Your task to perform on an android device: change notification settings in the gmail app Image 0: 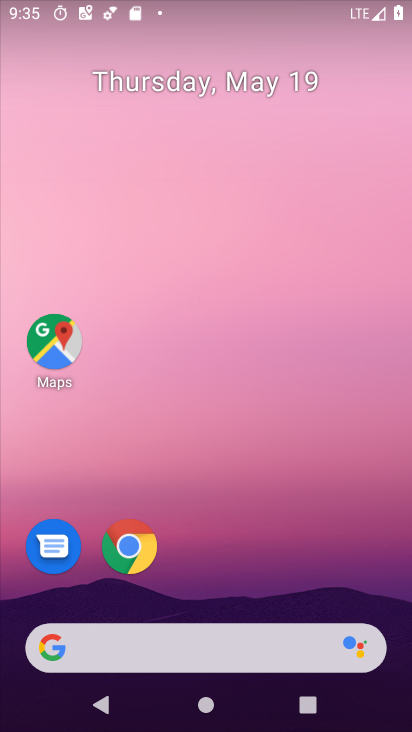
Step 0: drag from (341, 679) to (268, 6)
Your task to perform on an android device: change notification settings in the gmail app Image 1: 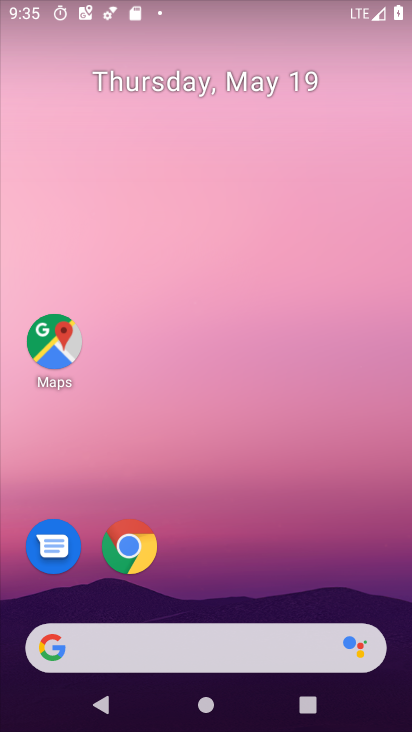
Step 1: drag from (259, 674) to (163, 180)
Your task to perform on an android device: change notification settings in the gmail app Image 2: 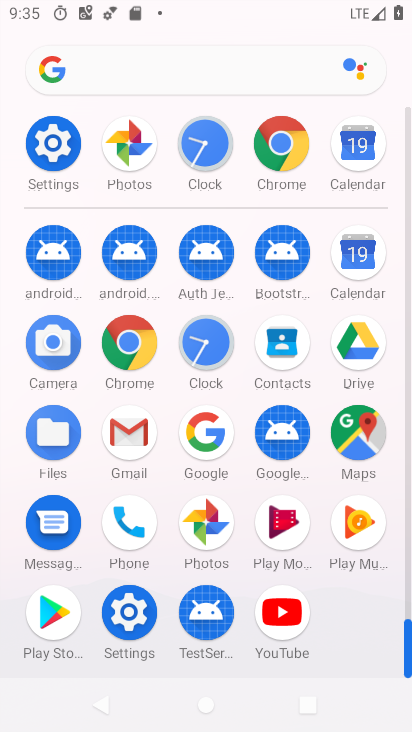
Step 2: click (136, 440)
Your task to perform on an android device: change notification settings in the gmail app Image 3: 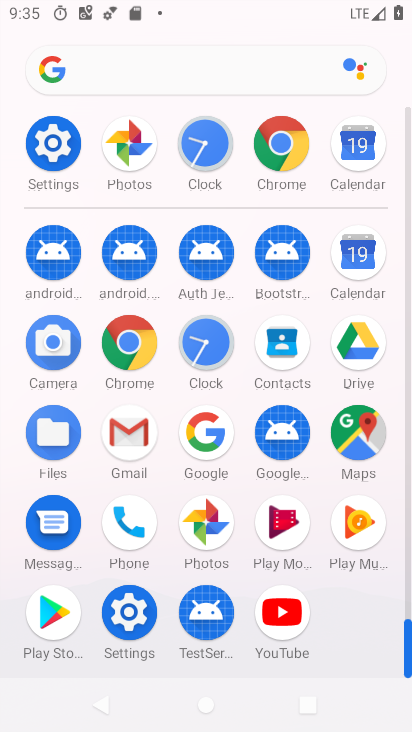
Step 3: click (136, 440)
Your task to perform on an android device: change notification settings in the gmail app Image 4: 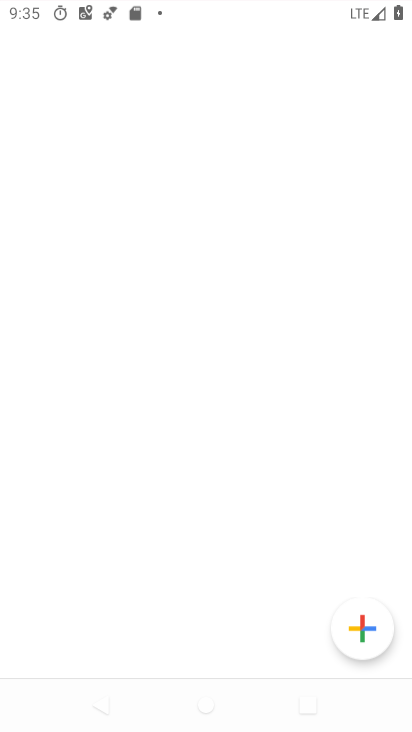
Step 4: click (135, 428)
Your task to perform on an android device: change notification settings in the gmail app Image 5: 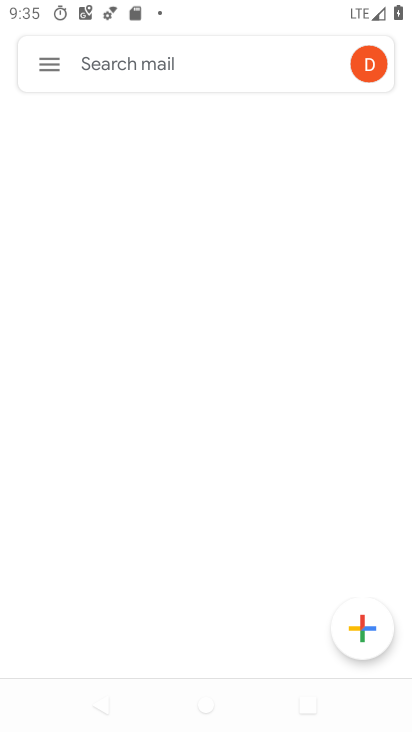
Step 5: click (146, 428)
Your task to perform on an android device: change notification settings in the gmail app Image 6: 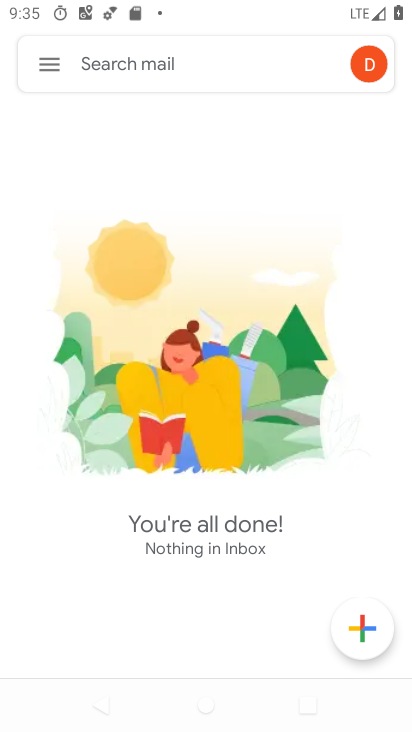
Step 6: press back button
Your task to perform on an android device: change notification settings in the gmail app Image 7: 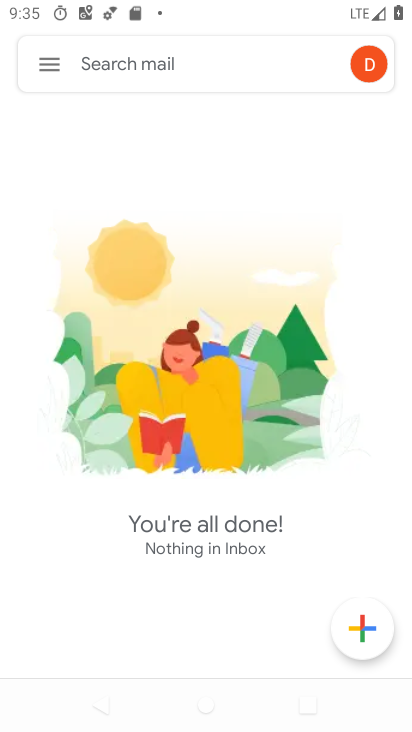
Step 7: press back button
Your task to perform on an android device: change notification settings in the gmail app Image 8: 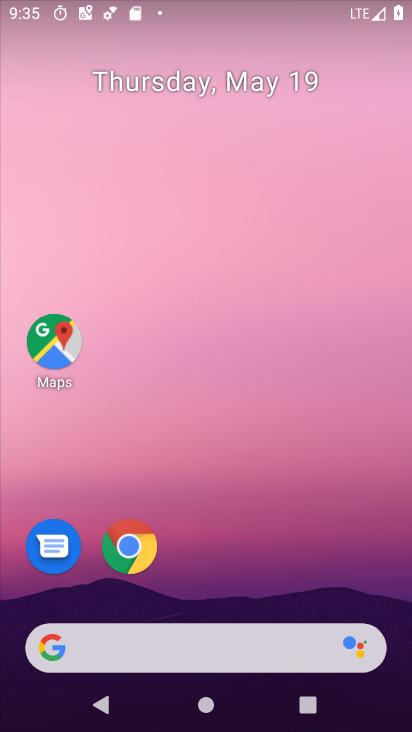
Step 8: drag from (238, 660) to (134, 236)
Your task to perform on an android device: change notification settings in the gmail app Image 9: 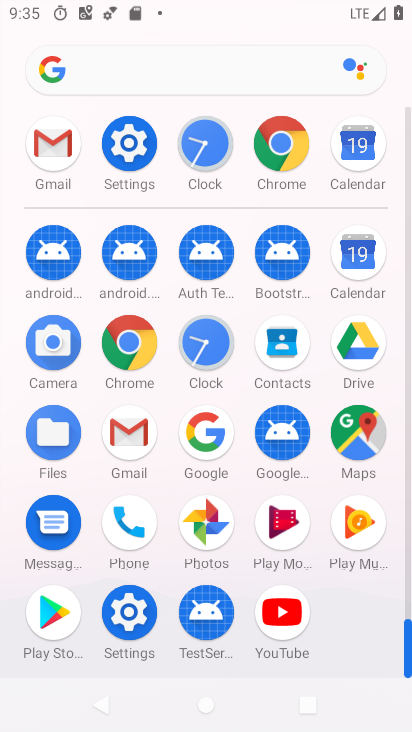
Step 9: click (136, 431)
Your task to perform on an android device: change notification settings in the gmail app Image 10: 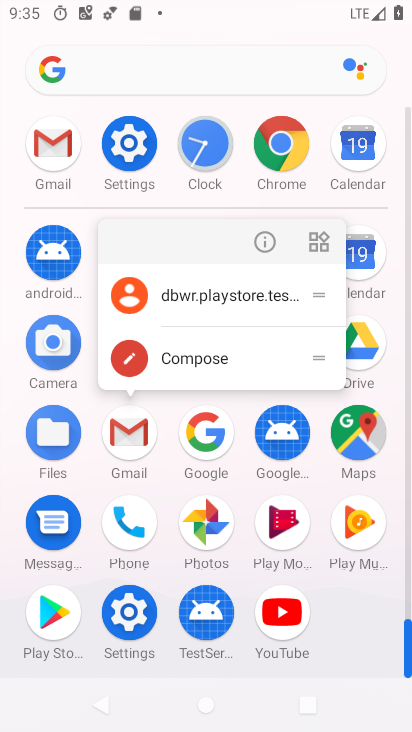
Step 10: click (140, 428)
Your task to perform on an android device: change notification settings in the gmail app Image 11: 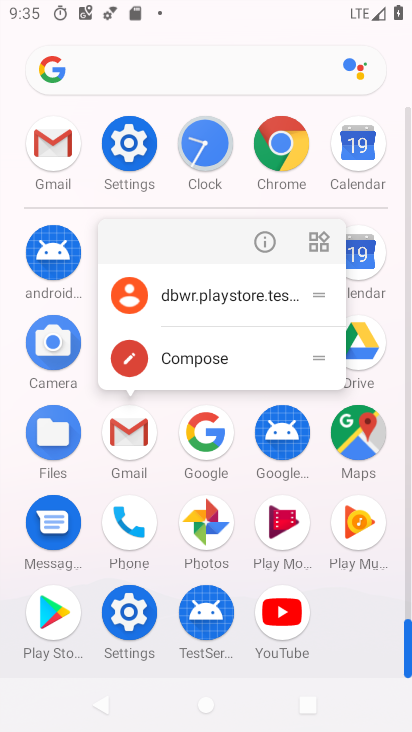
Step 11: click (140, 428)
Your task to perform on an android device: change notification settings in the gmail app Image 12: 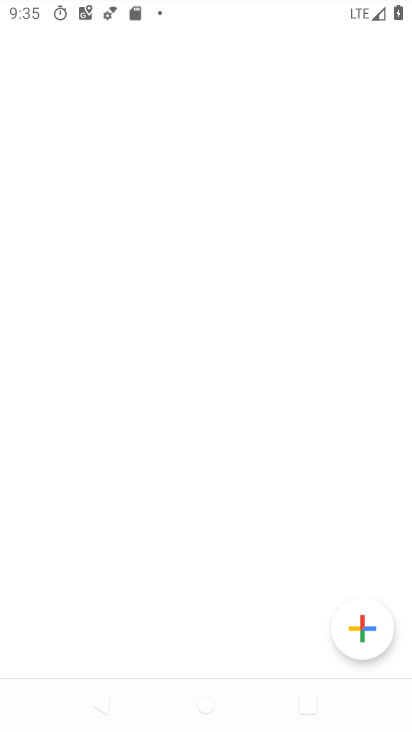
Step 12: click (140, 428)
Your task to perform on an android device: change notification settings in the gmail app Image 13: 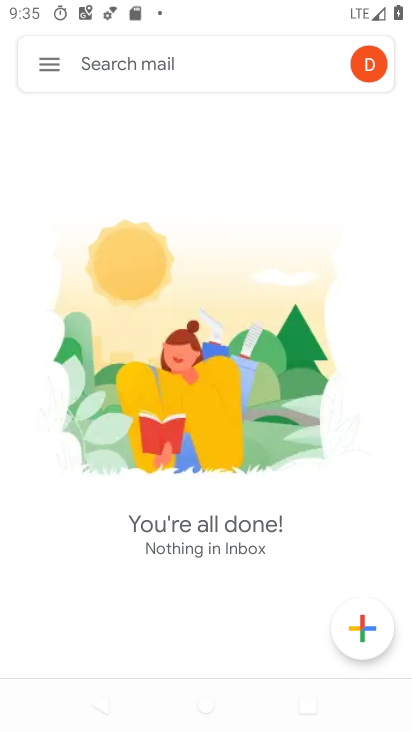
Step 13: click (31, 64)
Your task to perform on an android device: change notification settings in the gmail app Image 14: 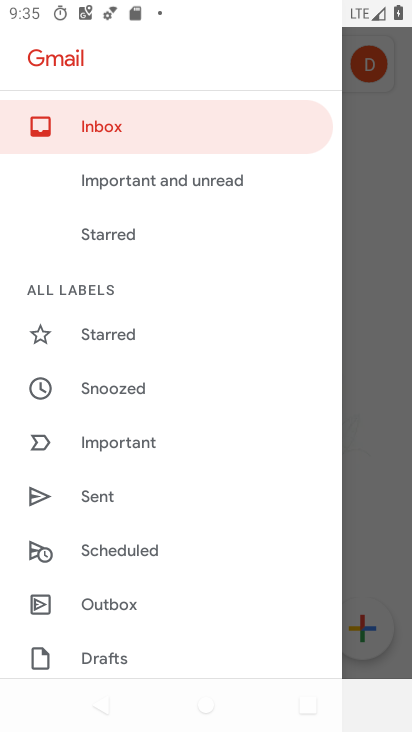
Step 14: drag from (163, 473) to (162, 207)
Your task to perform on an android device: change notification settings in the gmail app Image 15: 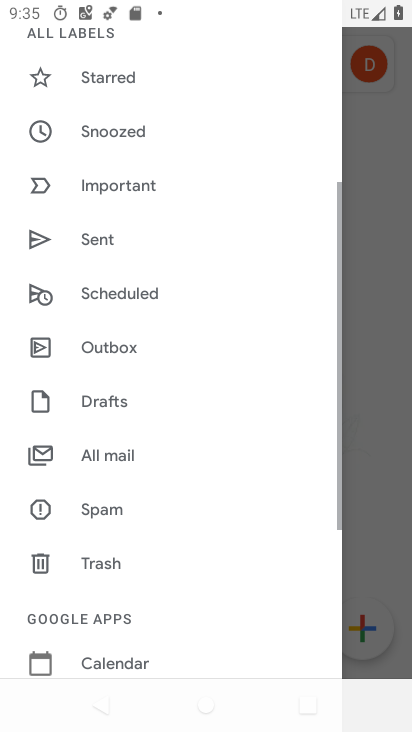
Step 15: drag from (174, 435) to (117, 73)
Your task to perform on an android device: change notification settings in the gmail app Image 16: 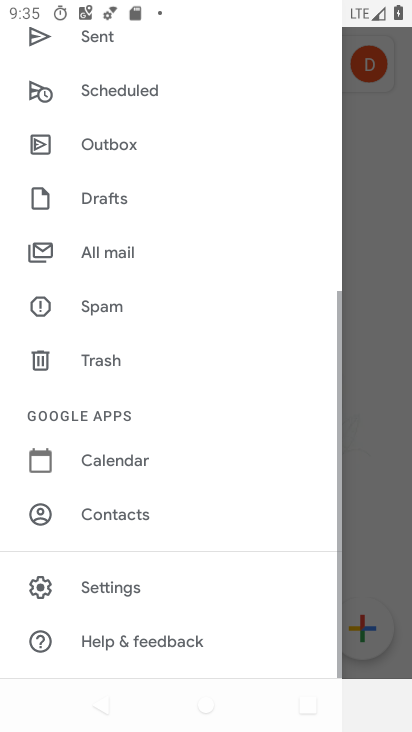
Step 16: click (113, 587)
Your task to perform on an android device: change notification settings in the gmail app Image 17: 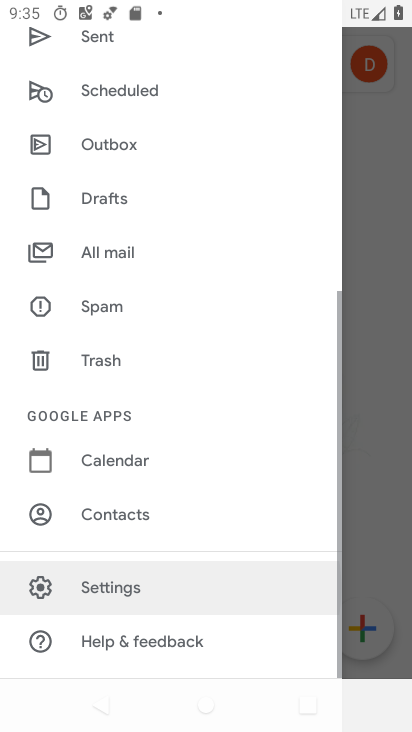
Step 17: click (113, 587)
Your task to perform on an android device: change notification settings in the gmail app Image 18: 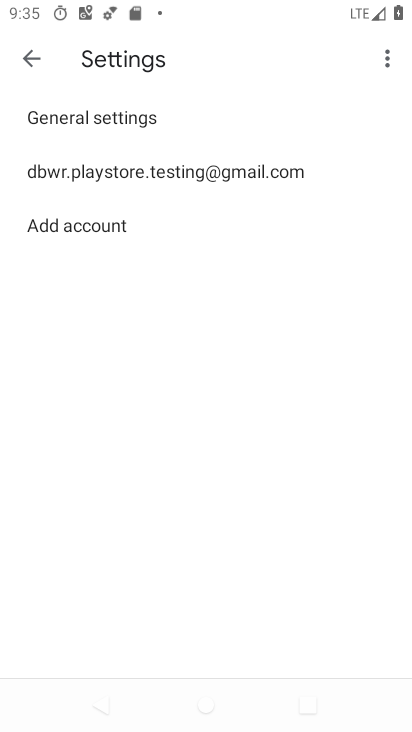
Step 18: click (94, 180)
Your task to perform on an android device: change notification settings in the gmail app Image 19: 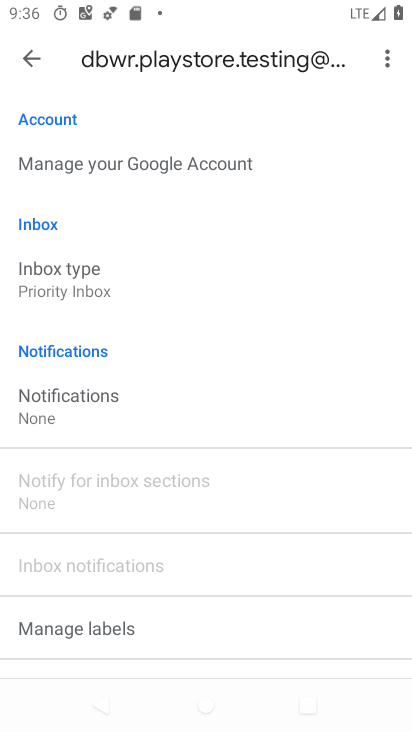
Step 19: click (70, 381)
Your task to perform on an android device: change notification settings in the gmail app Image 20: 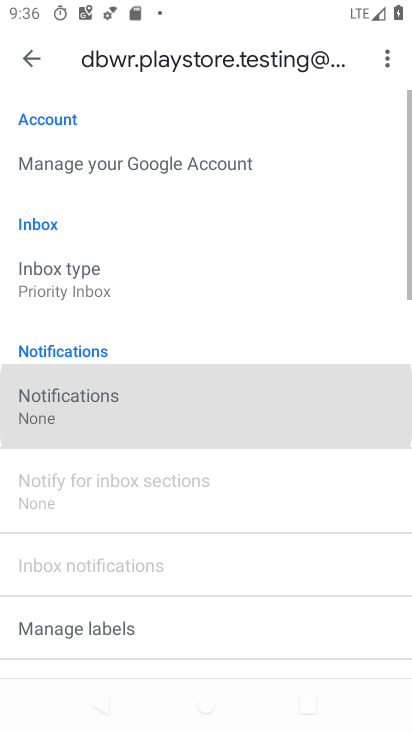
Step 20: click (67, 382)
Your task to perform on an android device: change notification settings in the gmail app Image 21: 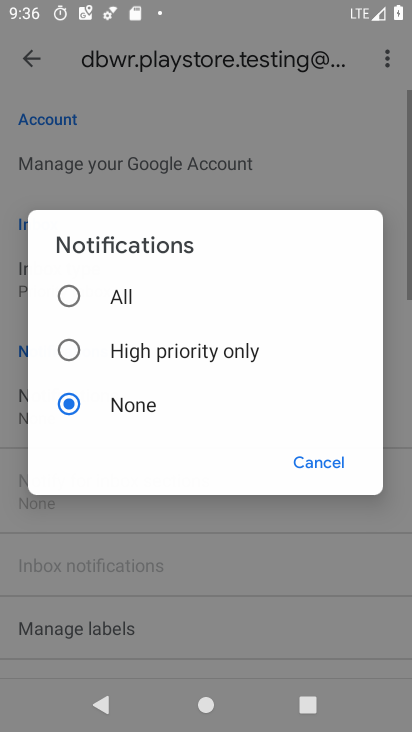
Step 21: click (67, 382)
Your task to perform on an android device: change notification settings in the gmail app Image 22: 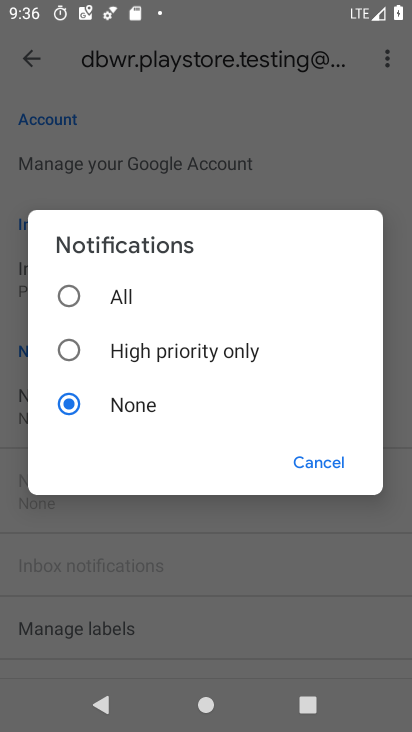
Step 22: click (74, 287)
Your task to perform on an android device: change notification settings in the gmail app Image 23: 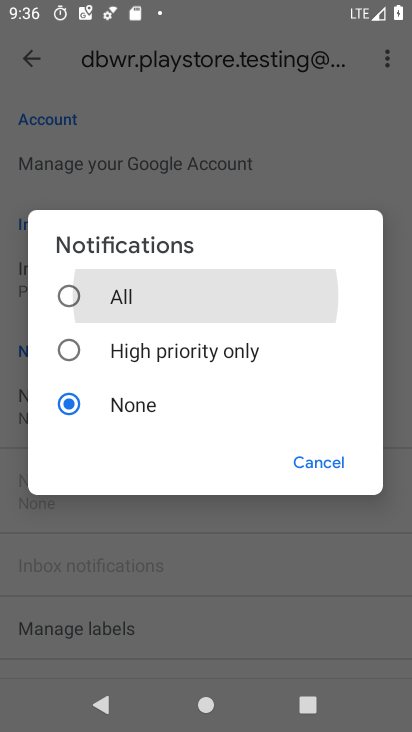
Step 23: click (74, 287)
Your task to perform on an android device: change notification settings in the gmail app Image 24: 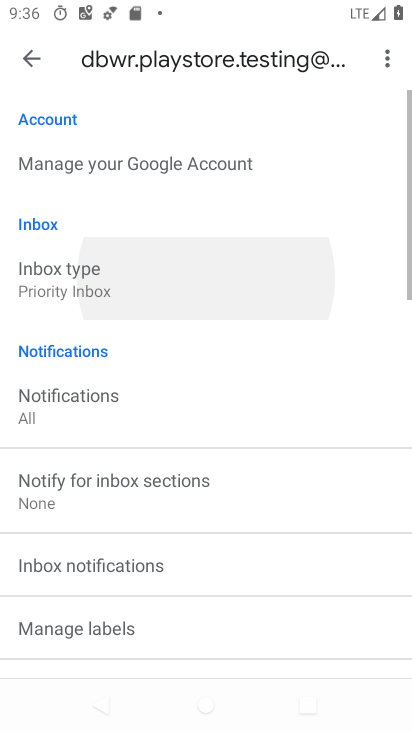
Step 24: click (73, 287)
Your task to perform on an android device: change notification settings in the gmail app Image 25: 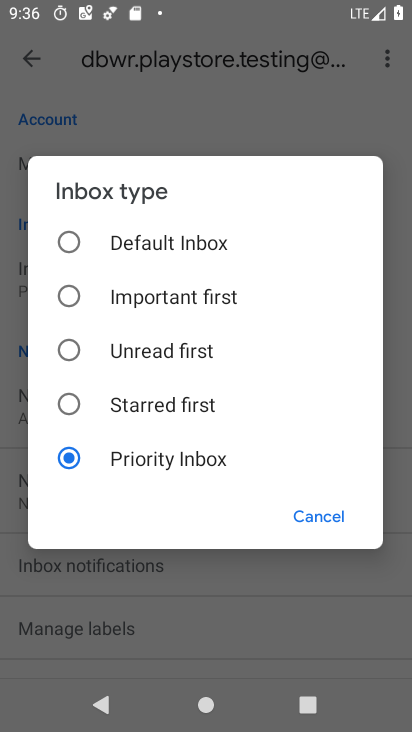
Step 25: click (66, 400)
Your task to perform on an android device: change notification settings in the gmail app Image 26: 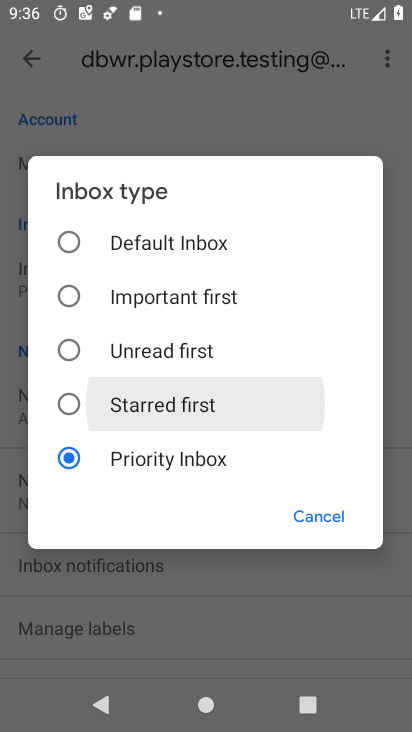
Step 26: click (66, 400)
Your task to perform on an android device: change notification settings in the gmail app Image 27: 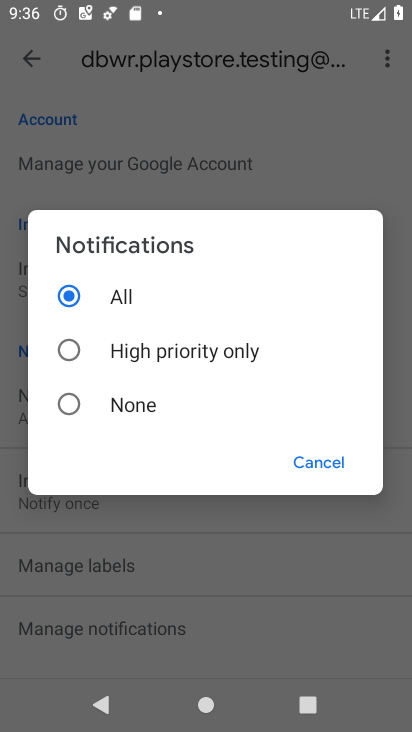
Step 27: click (304, 455)
Your task to perform on an android device: change notification settings in the gmail app Image 28: 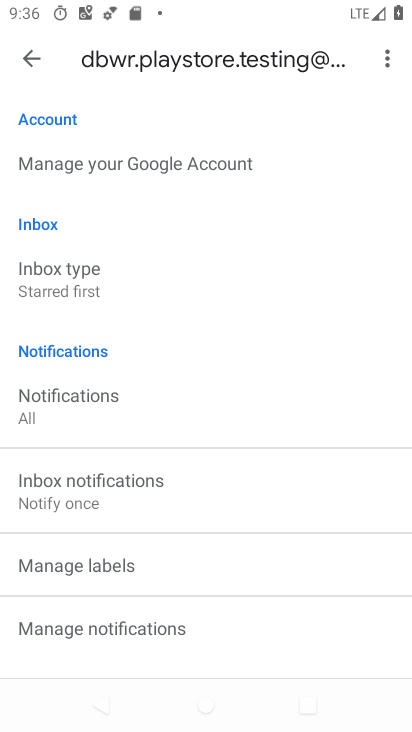
Step 28: task complete